Your task to perform on an android device: Open the phone app and click the voicemail tab. Image 0: 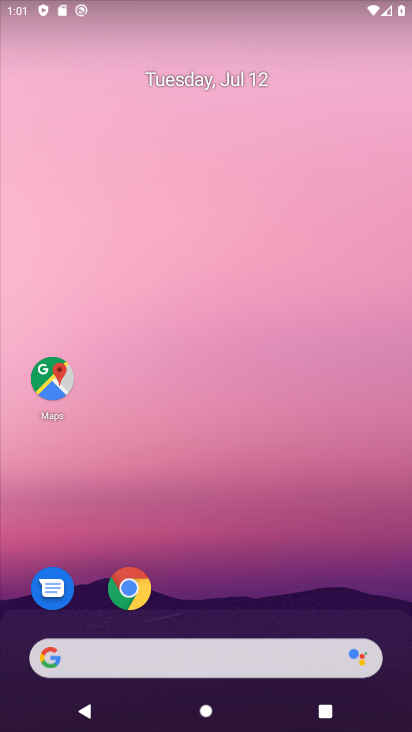
Step 0: click (276, 97)
Your task to perform on an android device: Open the phone app and click the voicemail tab. Image 1: 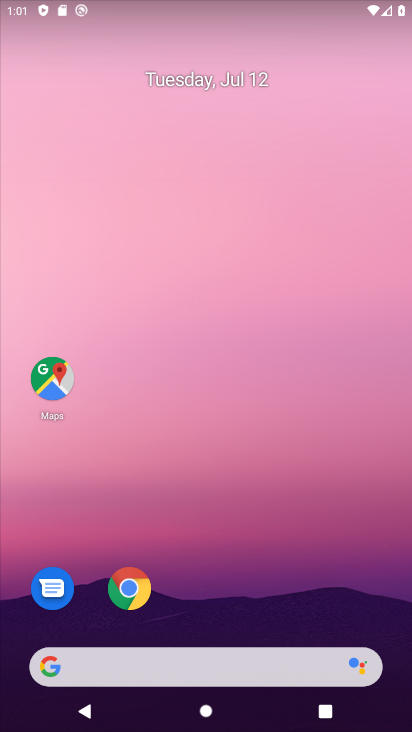
Step 1: drag from (210, 591) to (259, 116)
Your task to perform on an android device: Open the phone app and click the voicemail tab. Image 2: 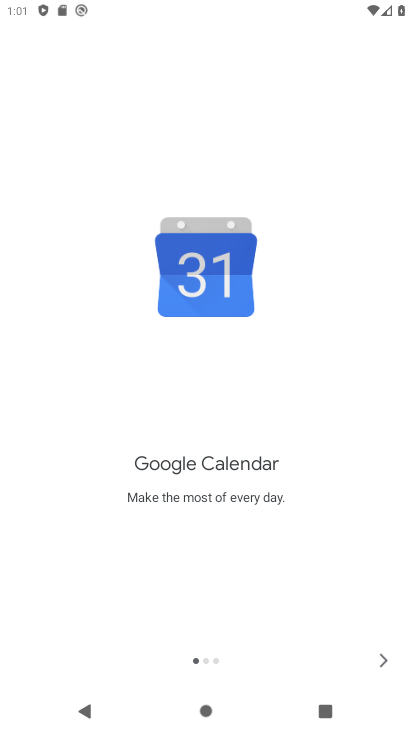
Step 2: press home button
Your task to perform on an android device: Open the phone app and click the voicemail tab. Image 3: 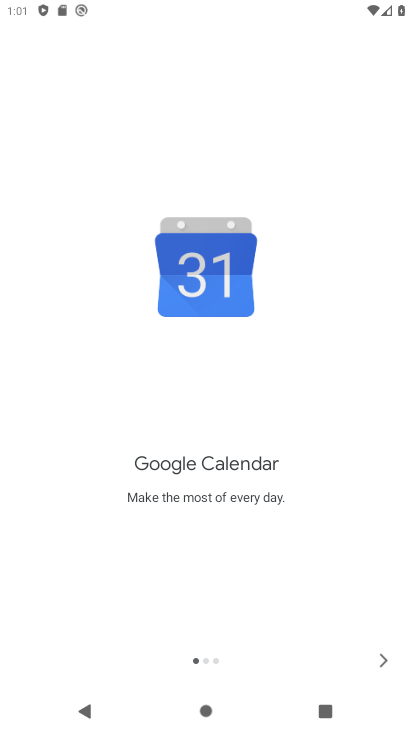
Step 3: press home button
Your task to perform on an android device: Open the phone app and click the voicemail tab. Image 4: 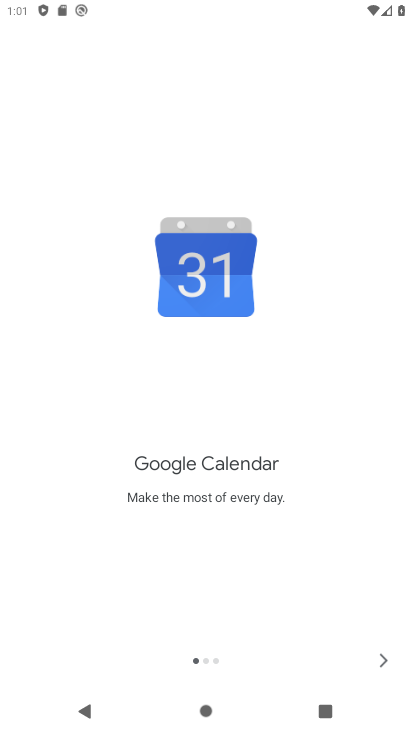
Step 4: click (197, 167)
Your task to perform on an android device: Open the phone app and click the voicemail tab. Image 5: 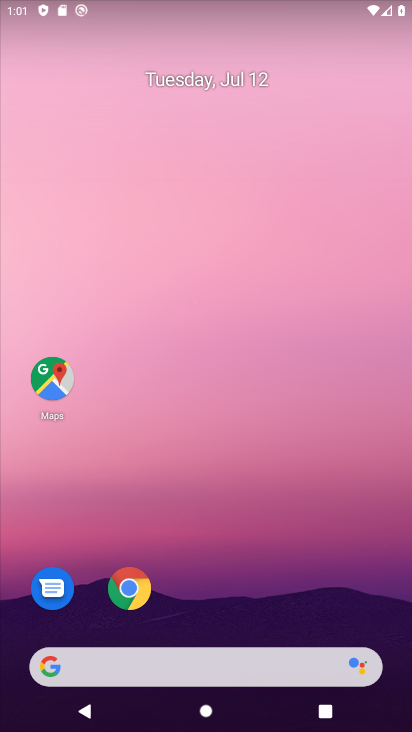
Step 5: press home button
Your task to perform on an android device: Open the phone app and click the voicemail tab. Image 6: 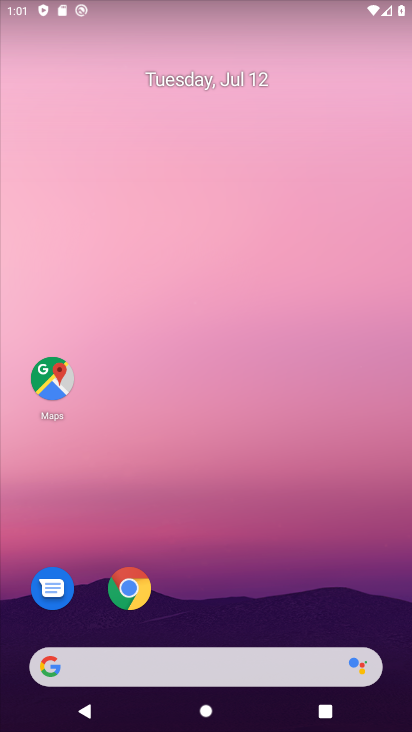
Step 6: press home button
Your task to perform on an android device: Open the phone app and click the voicemail tab. Image 7: 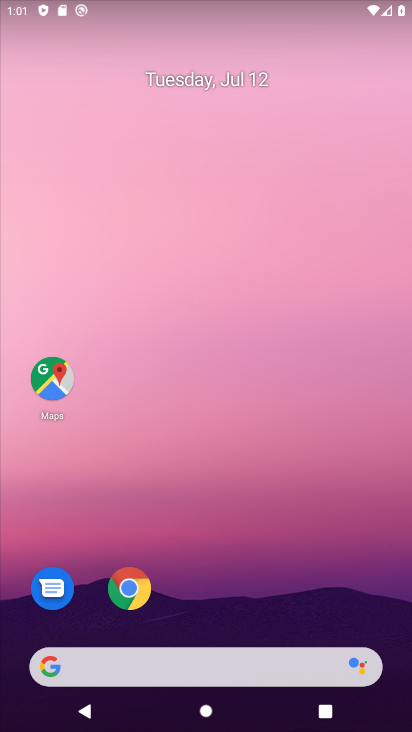
Step 7: drag from (196, 540) to (231, 119)
Your task to perform on an android device: Open the phone app and click the voicemail tab. Image 8: 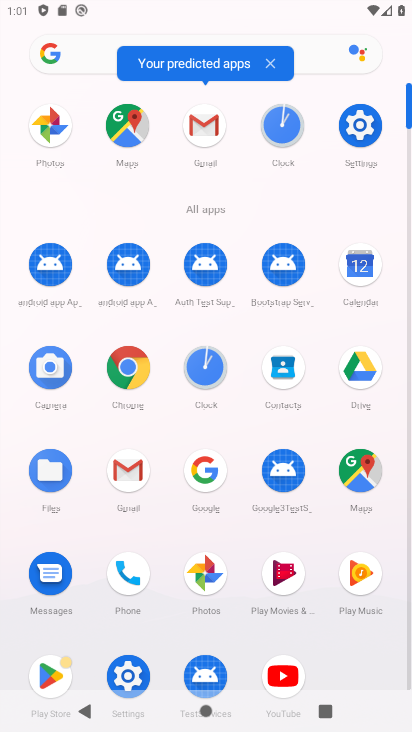
Step 8: click (124, 570)
Your task to perform on an android device: Open the phone app and click the voicemail tab. Image 9: 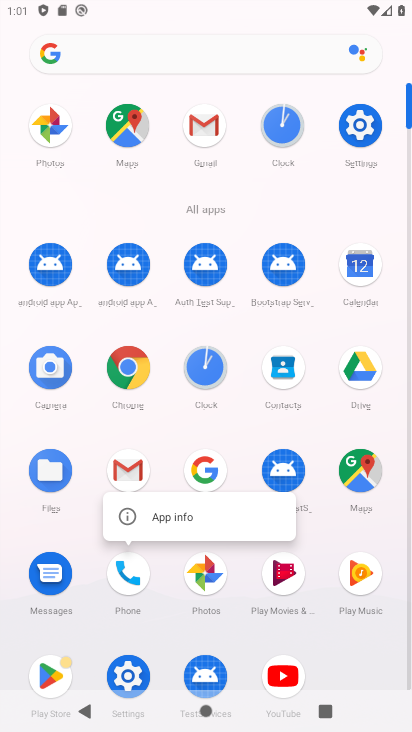
Step 9: click (169, 515)
Your task to perform on an android device: Open the phone app and click the voicemail tab. Image 10: 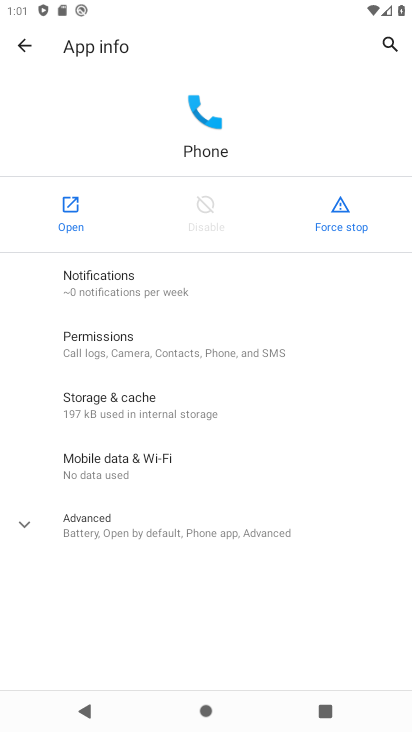
Step 10: click (69, 207)
Your task to perform on an android device: Open the phone app and click the voicemail tab. Image 11: 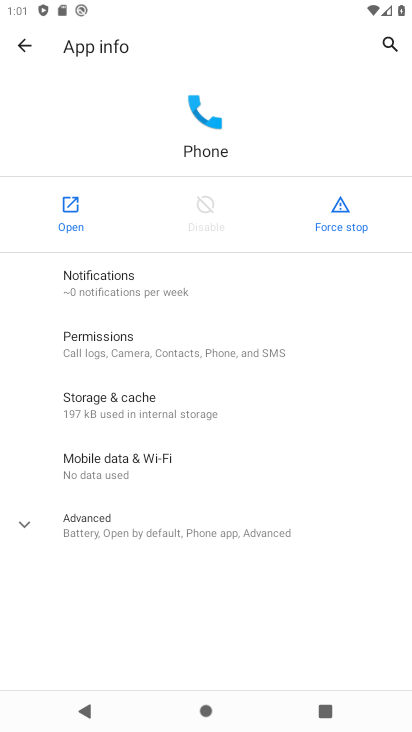
Step 11: click (69, 207)
Your task to perform on an android device: Open the phone app and click the voicemail tab. Image 12: 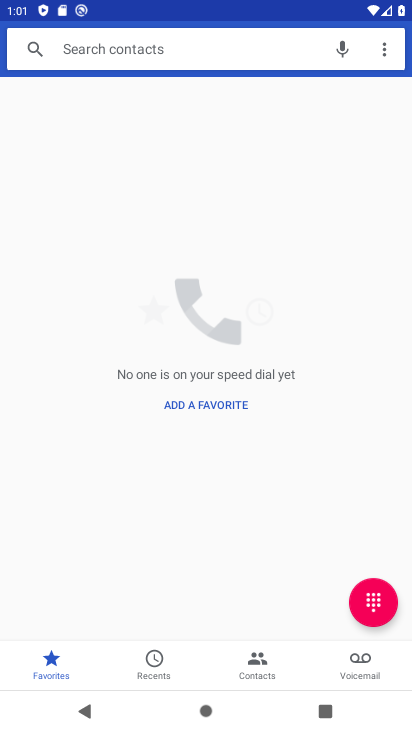
Step 12: click (359, 656)
Your task to perform on an android device: Open the phone app and click the voicemail tab. Image 13: 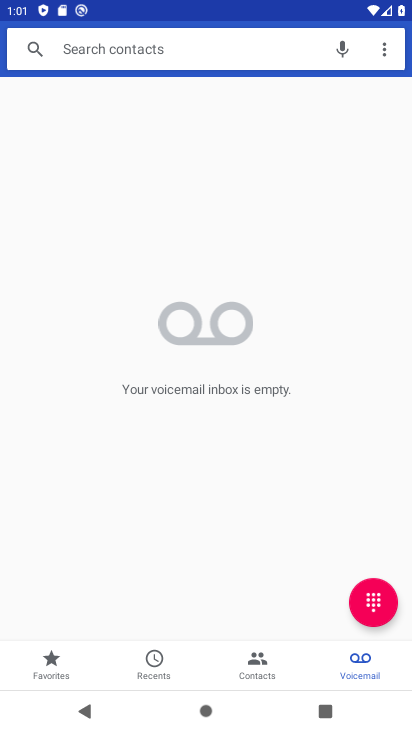
Step 13: drag from (199, 359) to (185, 250)
Your task to perform on an android device: Open the phone app and click the voicemail tab. Image 14: 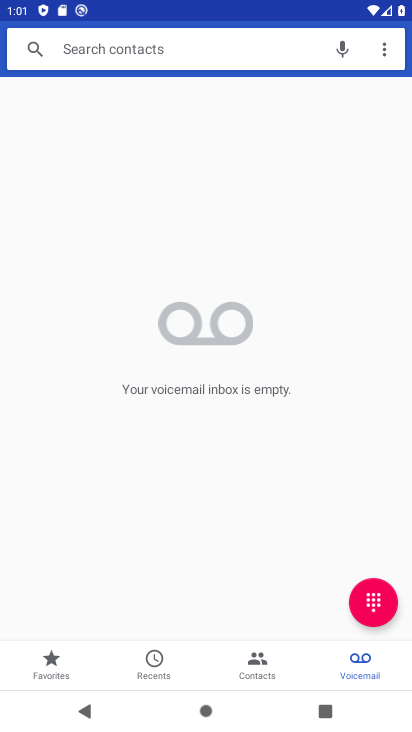
Step 14: click (353, 660)
Your task to perform on an android device: Open the phone app and click the voicemail tab. Image 15: 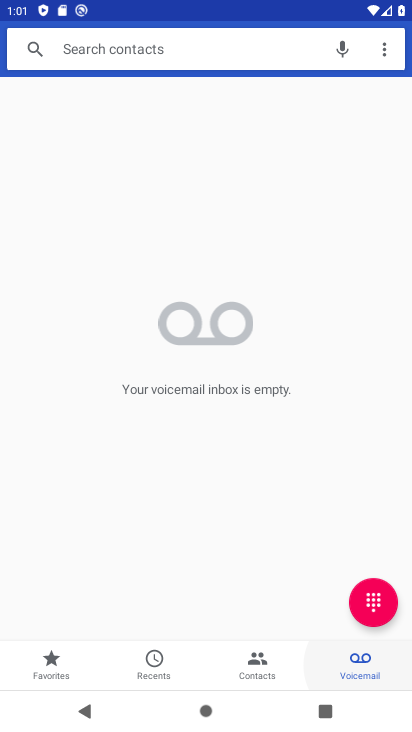
Step 15: task complete